Your task to perform on an android device: Open the calendar and show me this week's events Image 0: 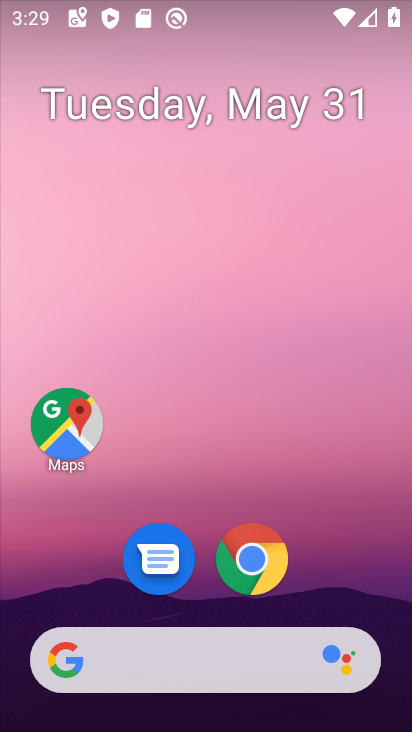
Step 0: drag from (220, 729) to (200, 141)
Your task to perform on an android device: Open the calendar and show me this week's events Image 1: 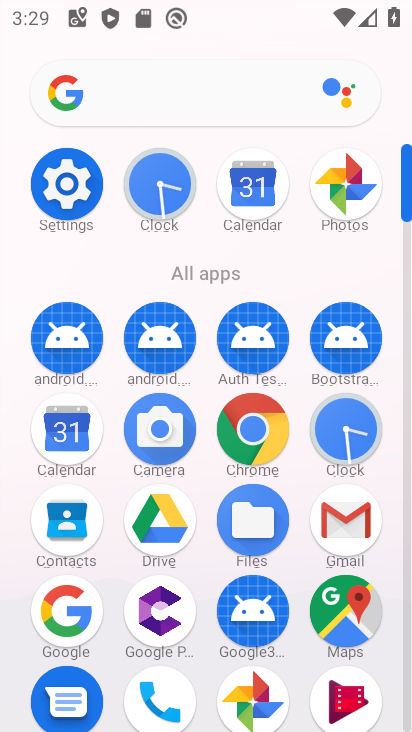
Step 1: click (68, 436)
Your task to perform on an android device: Open the calendar and show me this week's events Image 2: 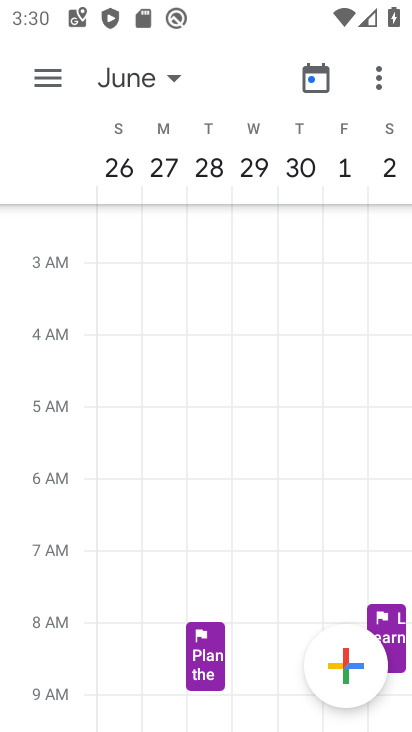
Step 2: click (144, 71)
Your task to perform on an android device: Open the calendar and show me this week's events Image 3: 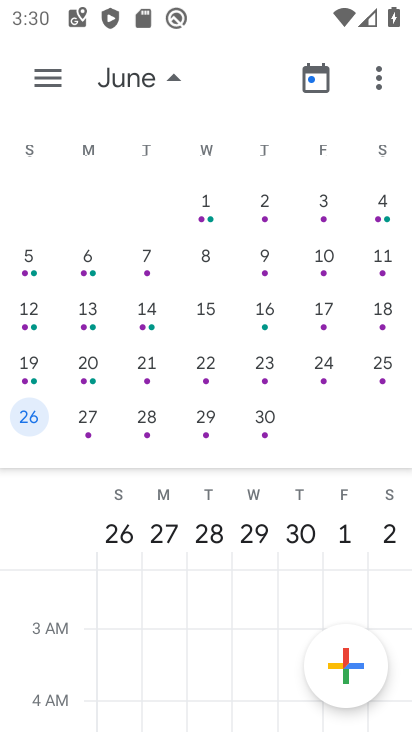
Step 3: drag from (359, 336) to (330, 319)
Your task to perform on an android device: Open the calendar and show me this week's events Image 4: 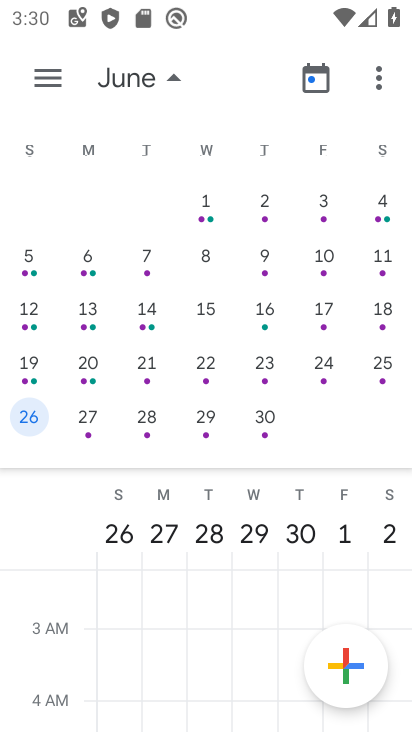
Step 4: click (84, 413)
Your task to perform on an android device: Open the calendar and show me this week's events Image 5: 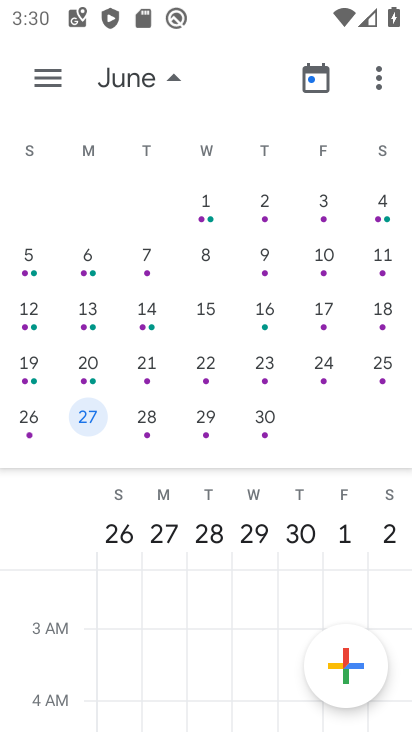
Step 5: click (89, 413)
Your task to perform on an android device: Open the calendar and show me this week's events Image 6: 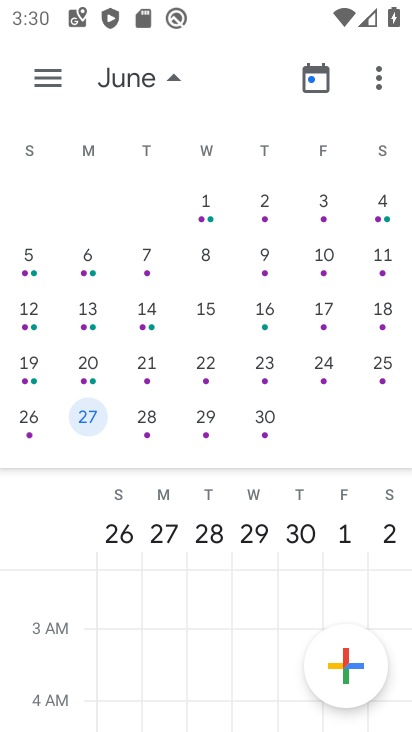
Step 6: click (45, 77)
Your task to perform on an android device: Open the calendar and show me this week's events Image 7: 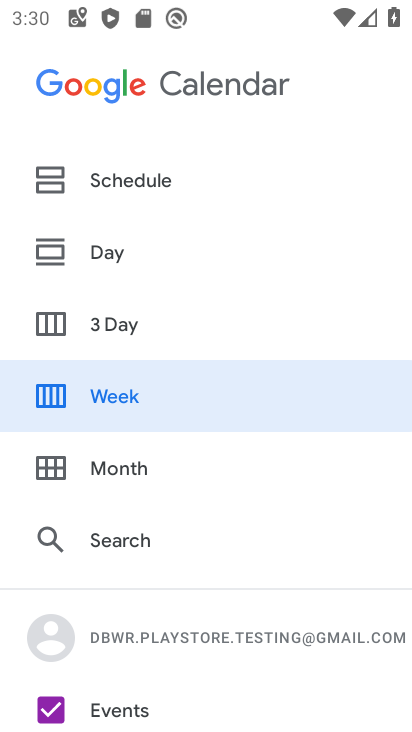
Step 7: click (111, 396)
Your task to perform on an android device: Open the calendar and show me this week's events Image 8: 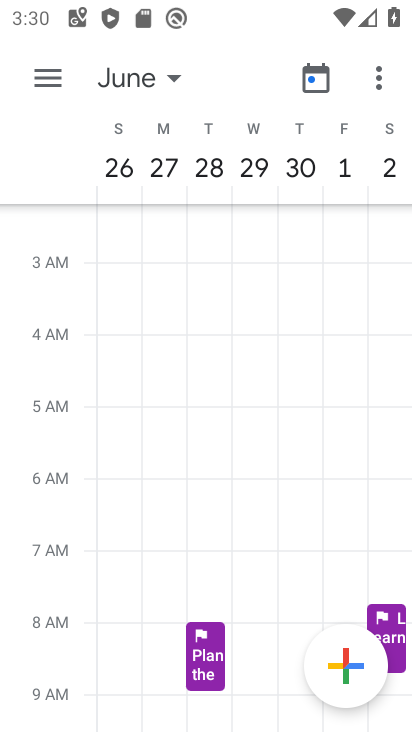
Step 8: task complete